Your task to perform on an android device: When is my next appointment? Image 0: 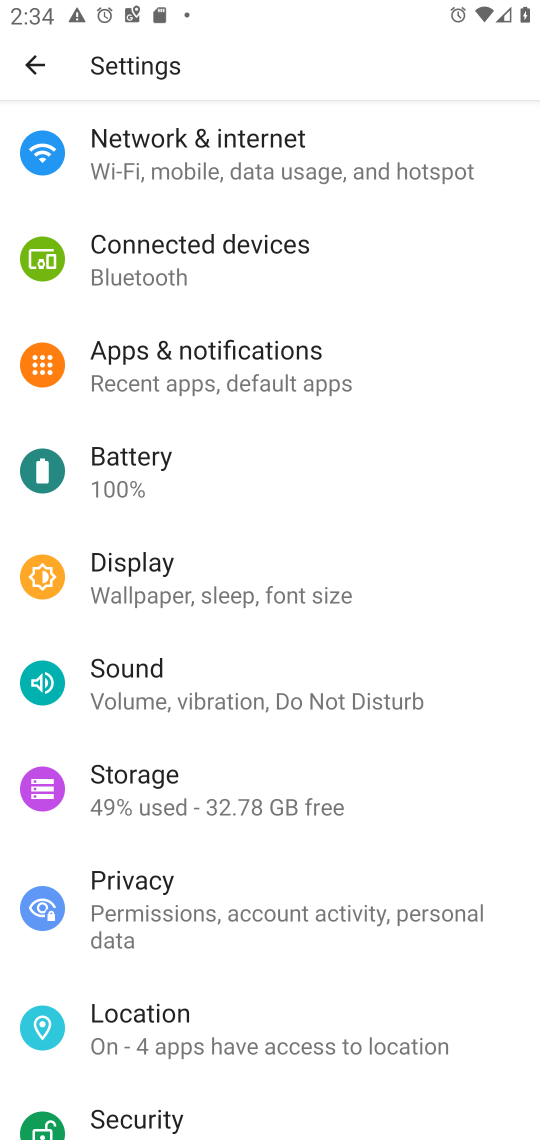
Step 0: press home button
Your task to perform on an android device: When is my next appointment? Image 1: 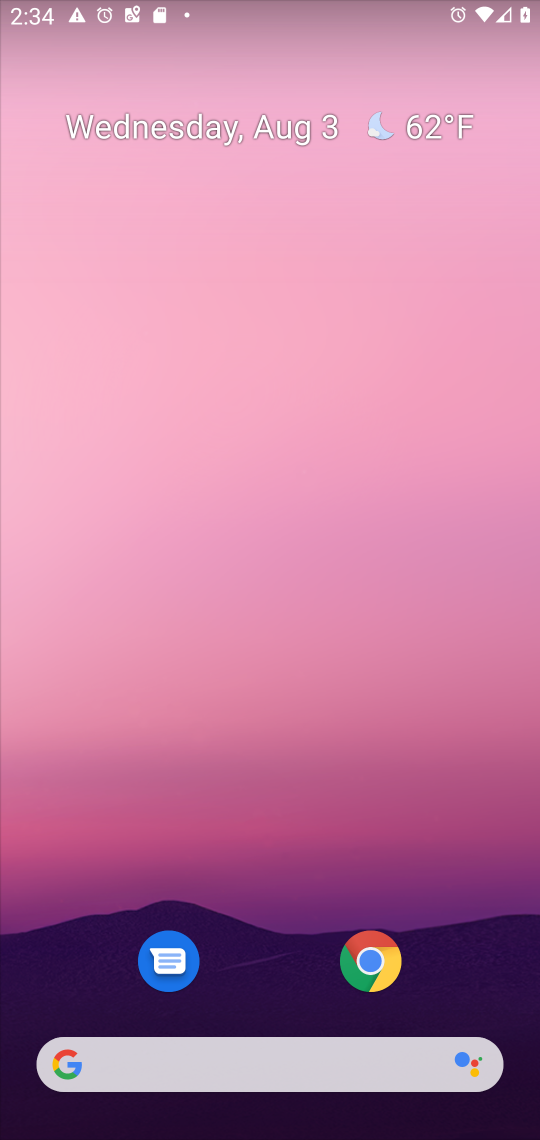
Step 1: drag from (254, 994) to (290, 98)
Your task to perform on an android device: When is my next appointment? Image 2: 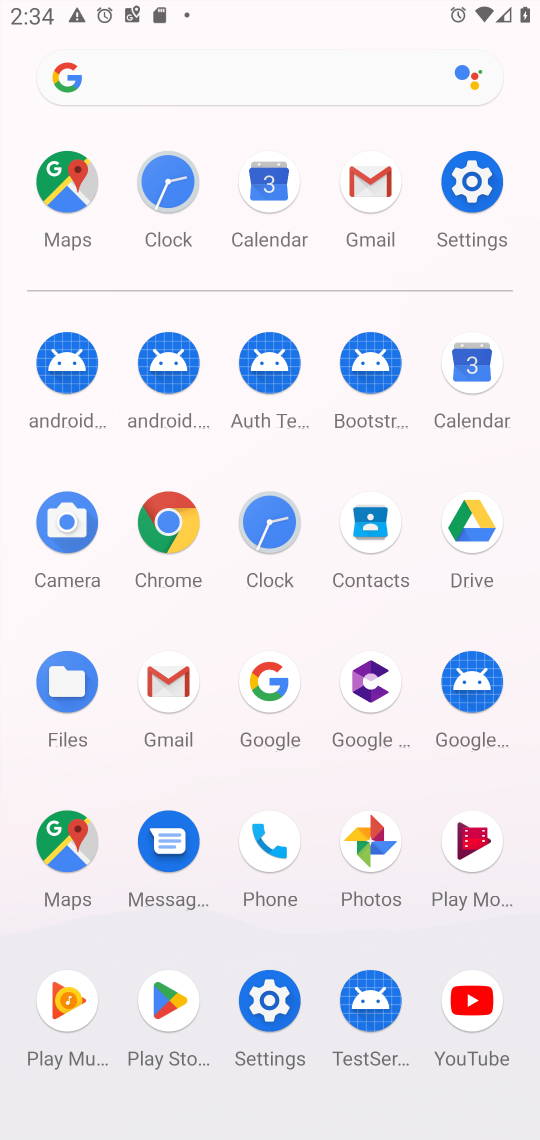
Step 2: click (479, 358)
Your task to perform on an android device: When is my next appointment? Image 3: 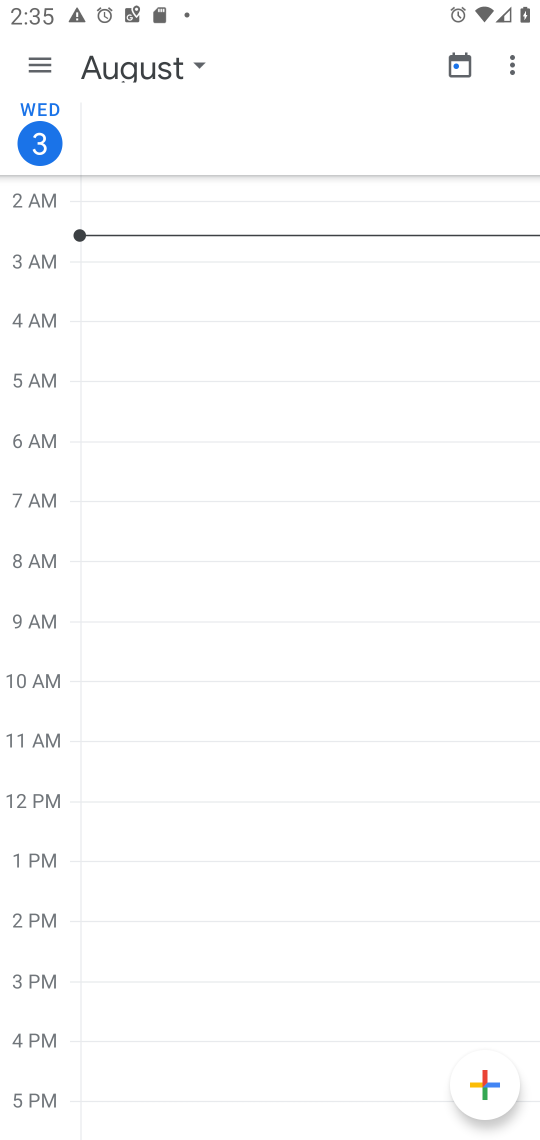
Step 3: click (44, 68)
Your task to perform on an android device: When is my next appointment? Image 4: 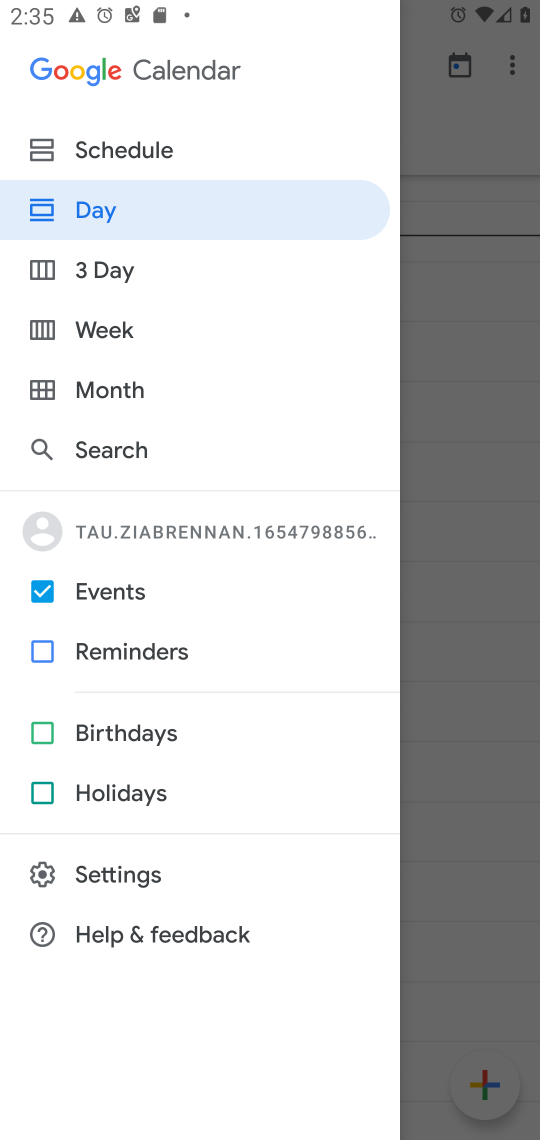
Step 4: click (89, 139)
Your task to perform on an android device: When is my next appointment? Image 5: 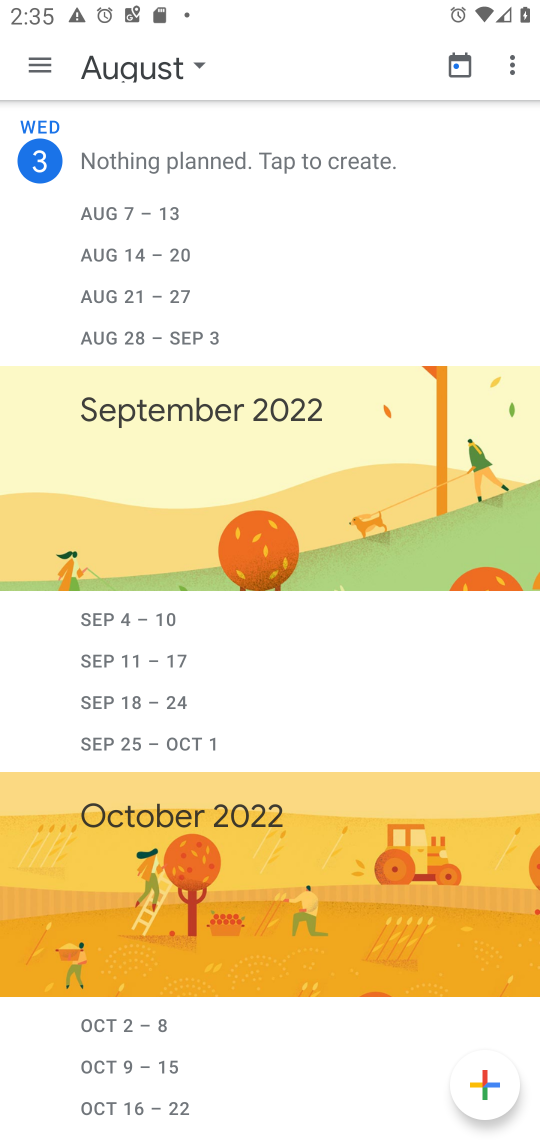
Step 5: drag from (232, 688) to (205, 232)
Your task to perform on an android device: When is my next appointment? Image 6: 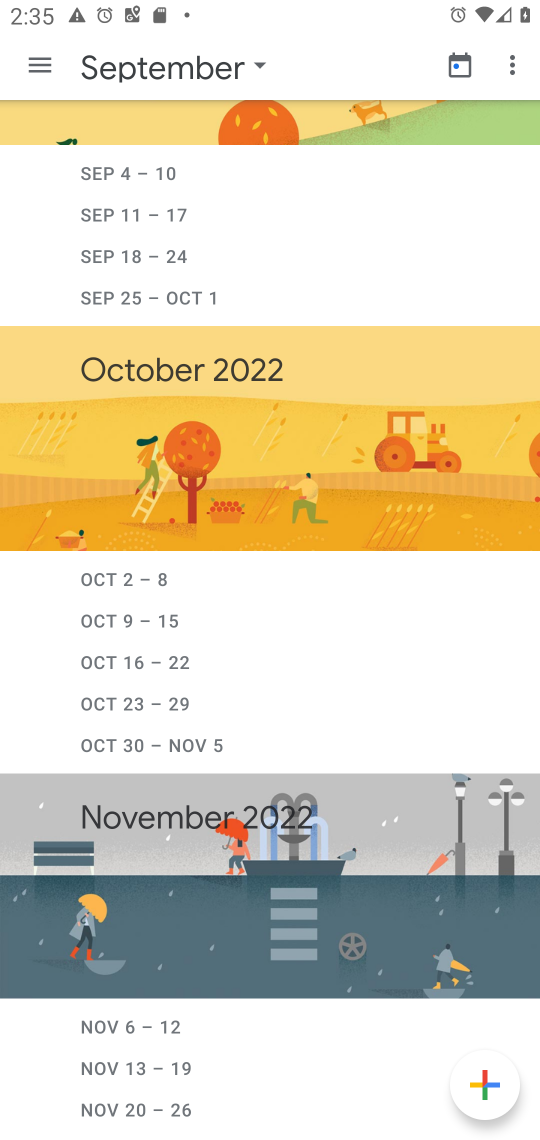
Step 6: click (43, 56)
Your task to perform on an android device: When is my next appointment? Image 7: 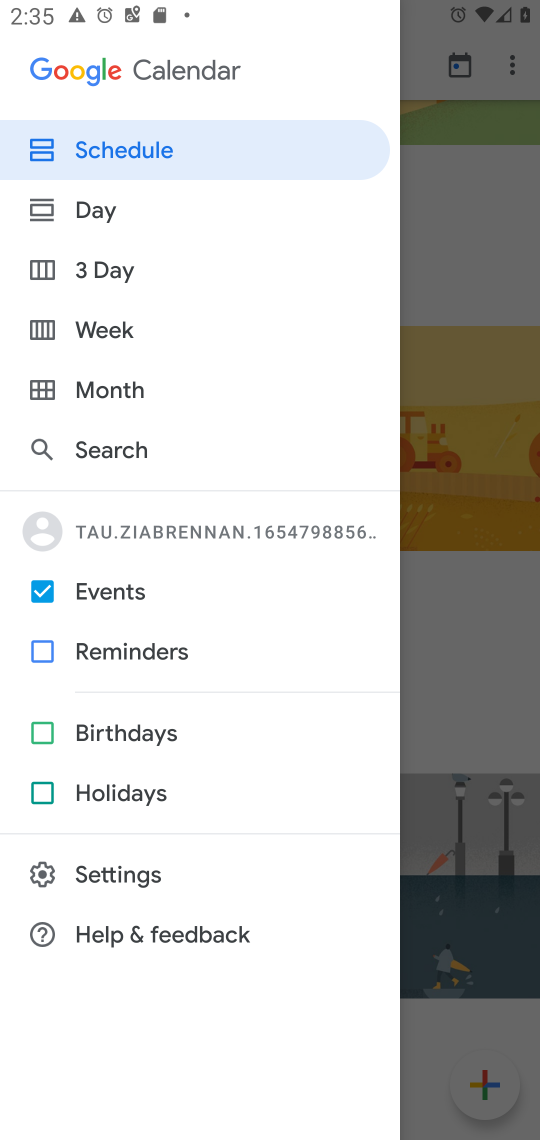
Step 7: click (50, 656)
Your task to perform on an android device: When is my next appointment? Image 8: 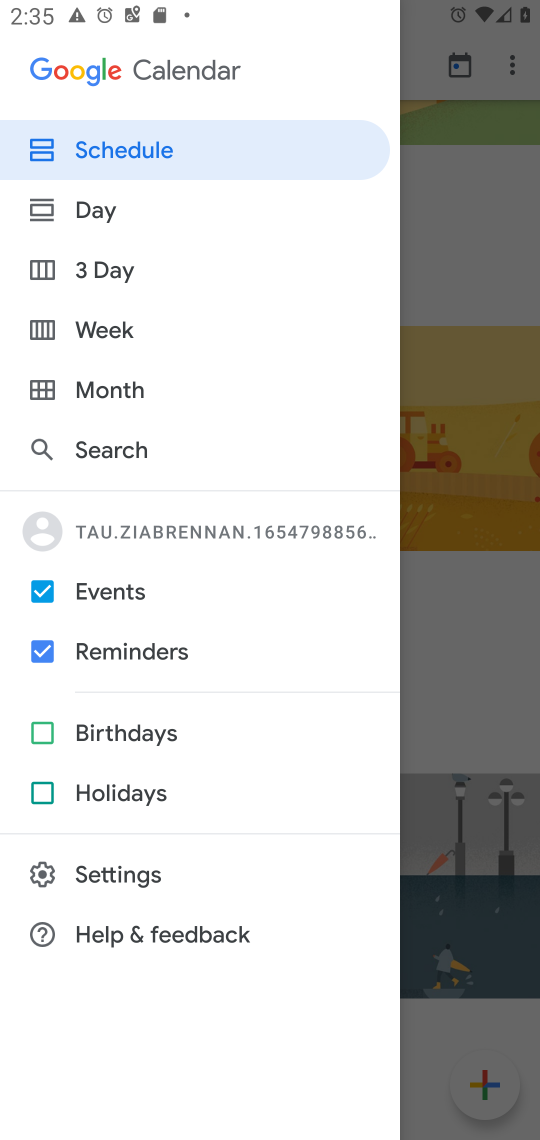
Step 8: click (113, 128)
Your task to perform on an android device: When is my next appointment? Image 9: 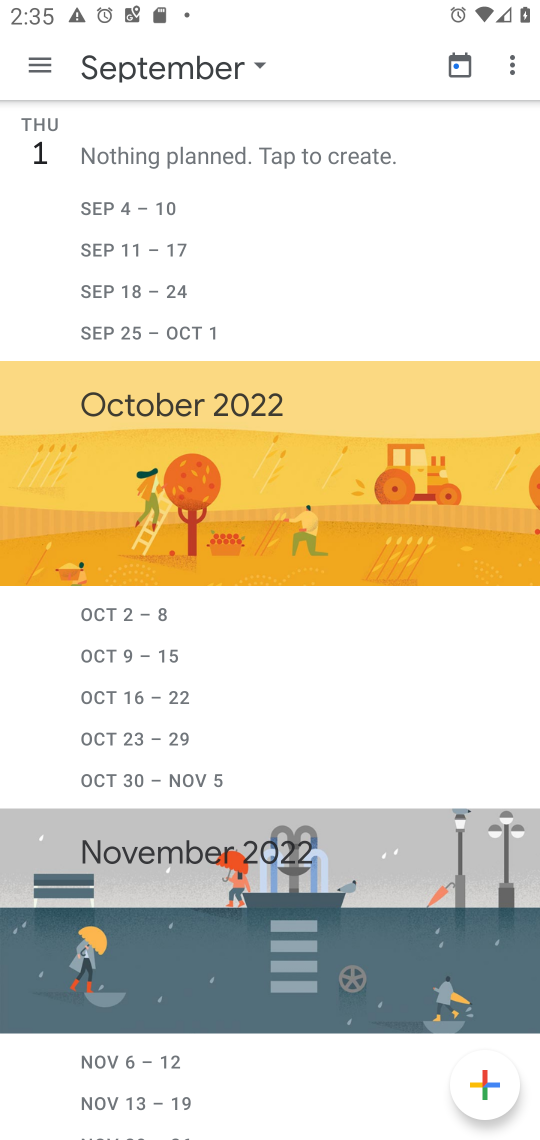
Step 9: task complete